Your task to perform on an android device: Open the map Image 0: 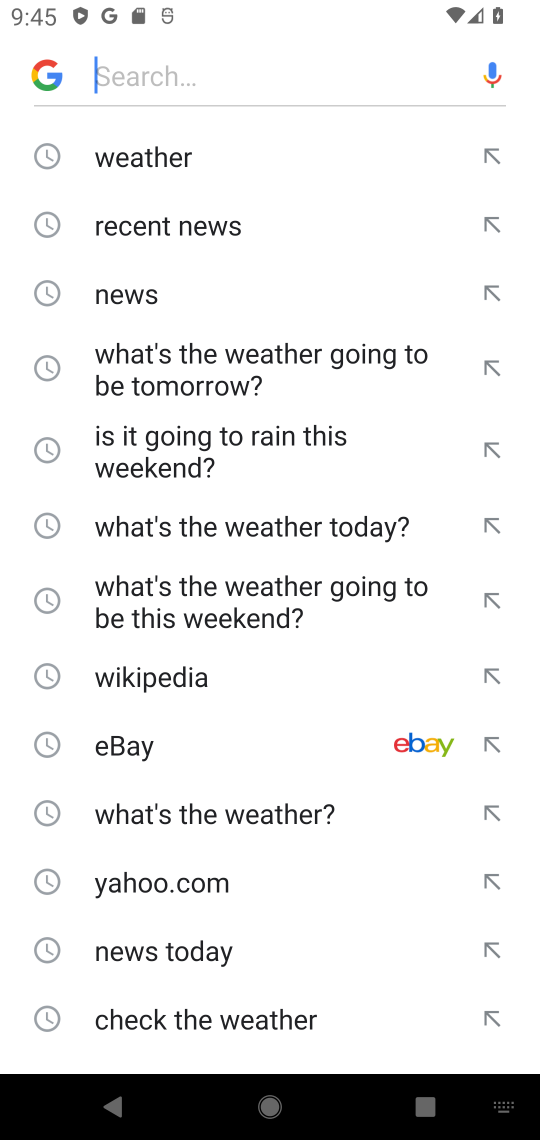
Step 0: press home button
Your task to perform on an android device: Open the map Image 1: 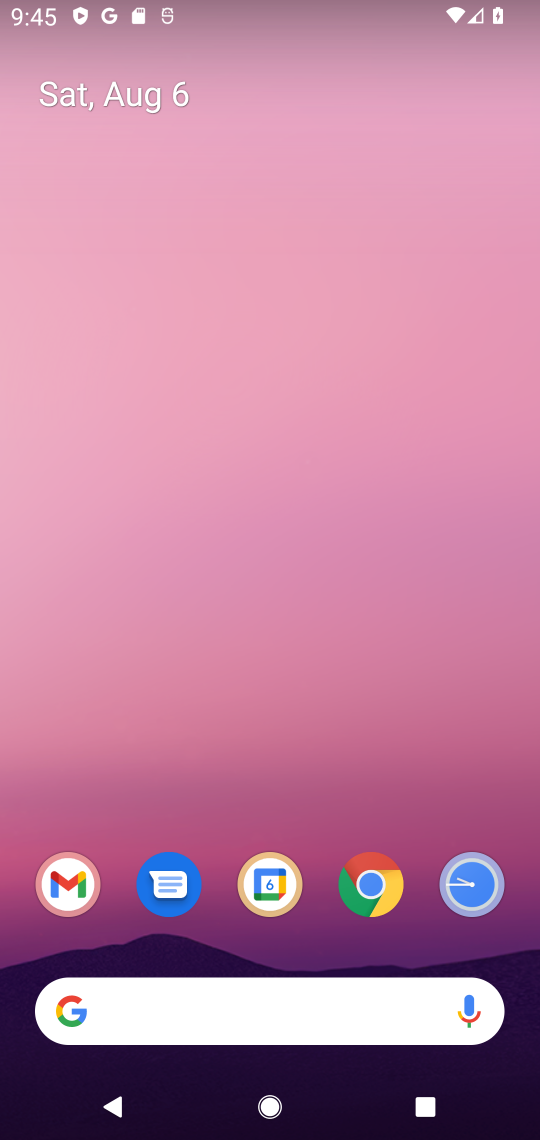
Step 1: drag from (315, 961) to (368, 205)
Your task to perform on an android device: Open the map Image 2: 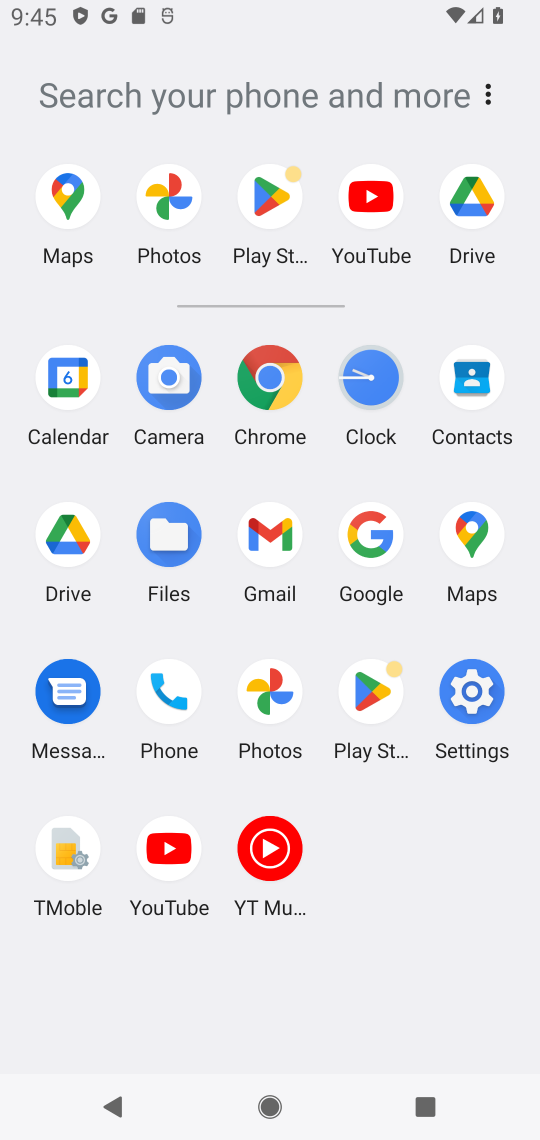
Step 2: click (472, 530)
Your task to perform on an android device: Open the map Image 3: 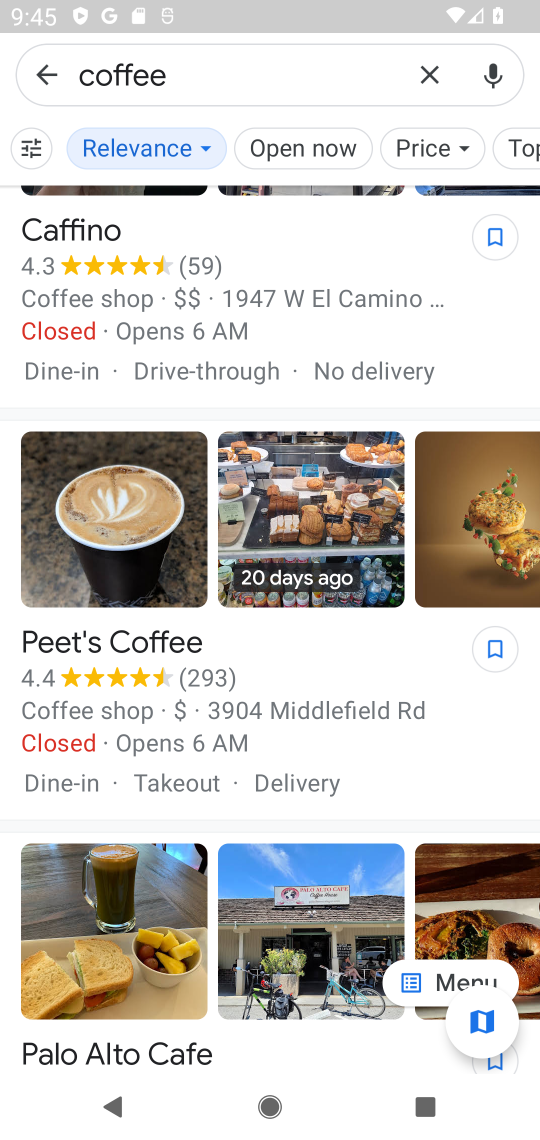
Step 3: click (421, 72)
Your task to perform on an android device: Open the map Image 4: 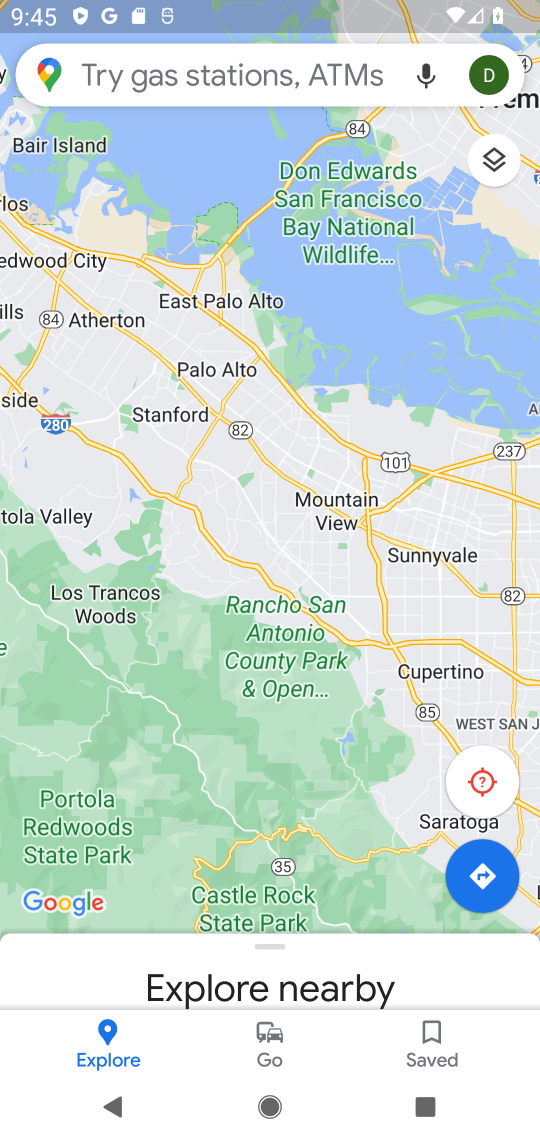
Step 4: task complete